Your task to perform on an android device: turn off location Image 0: 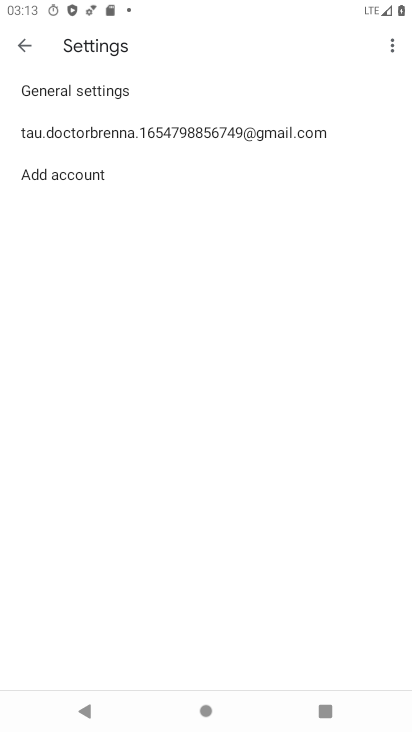
Step 0: press home button
Your task to perform on an android device: turn off location Image 1: 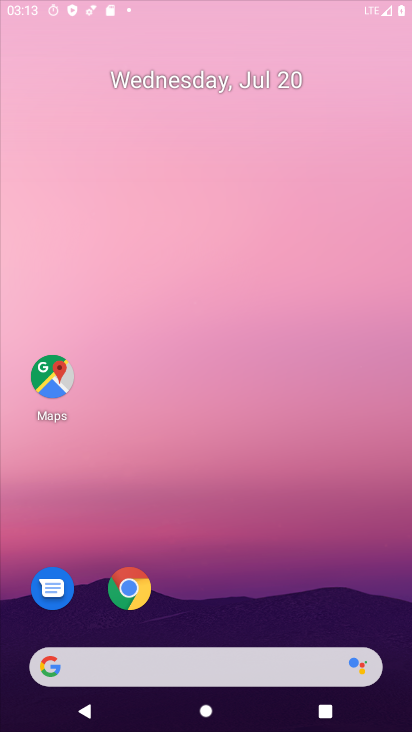
Step 1: drag from (172, 579) to (245, 96)
Your task to perform on an android device: turn off location Image 2: 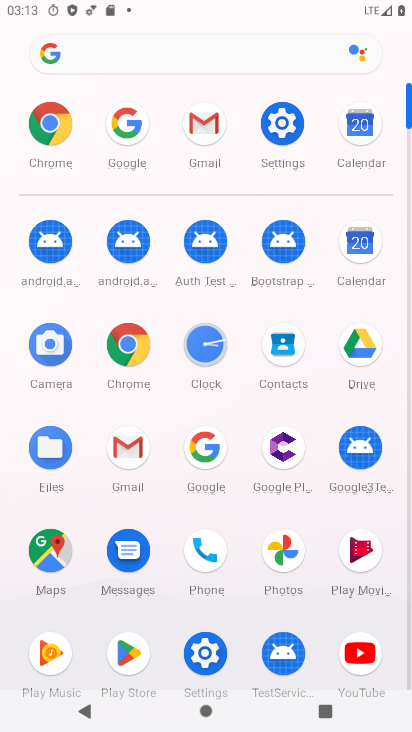
Step 2: click (272, 136)
Your task to perform on an android device: turn off location Image 3: 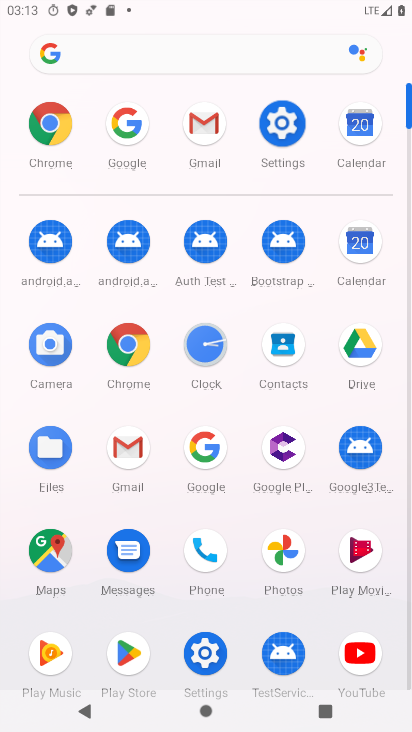
Step 3: click (286, 120)
Your task to perform on an android device: turn off location Image 4: 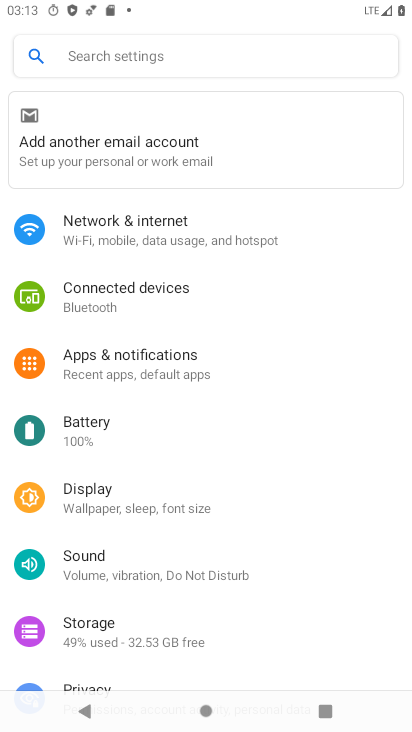
Step 4: drag from (106, 607) to (186, 250)
Your task to perform on an android device: turn off location Image 5: 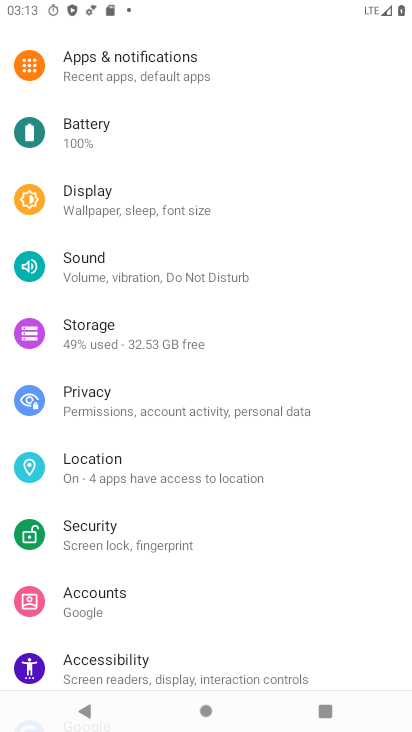
Step 5: click (139, 476)
Your task to perform on an android device: turn off location Image 6: 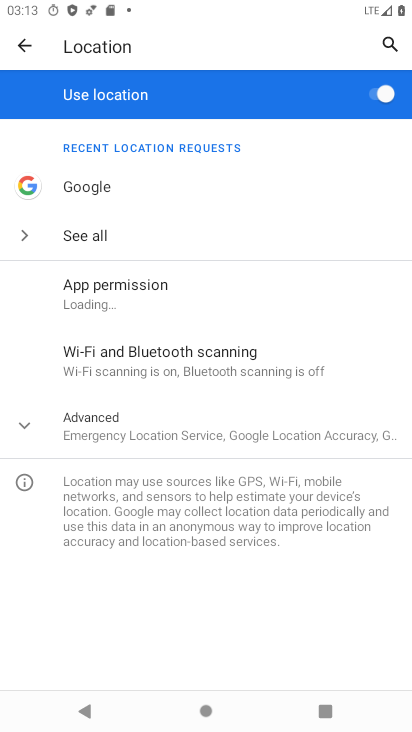
Step 6: drag from (232, 507) to (287, 242)
Your task to perform on an android device: turn off location Image 7: 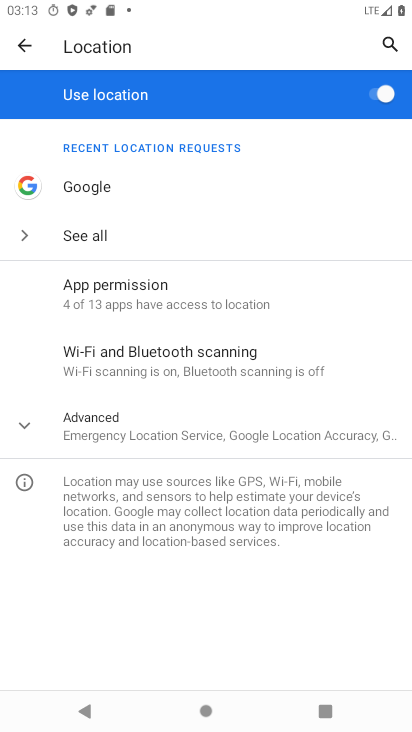
Step 7: click (376, 88)
Your task to perform on an android device: turn off location Image 8: 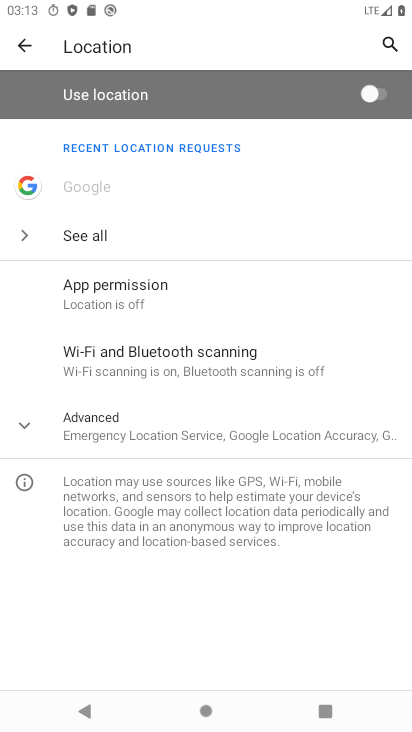
Step 8: task complete